Your task to perform on an android device: add a contact in the contacts app Image 0: 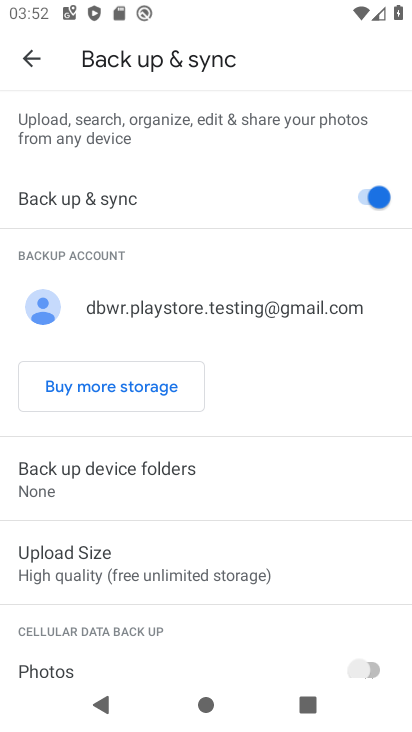
Step 0: press home button
Your task to perform on an android device: add a contact in the contacts app Image 1: 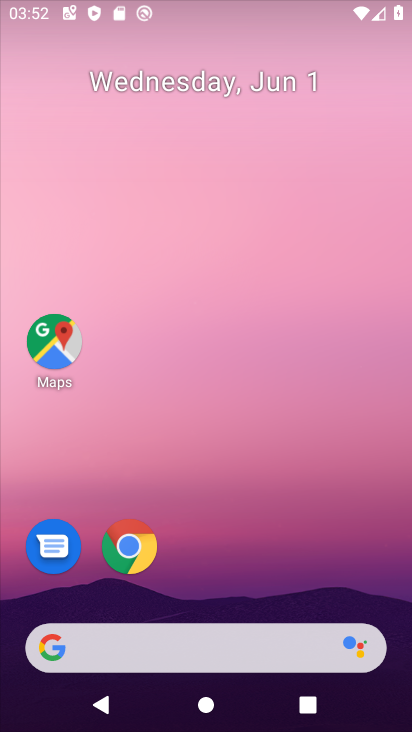
Step 1: drag from (317, 539) to (237, 5)
Your task to perform on an android device: add a contact in the contacts app Image 2: 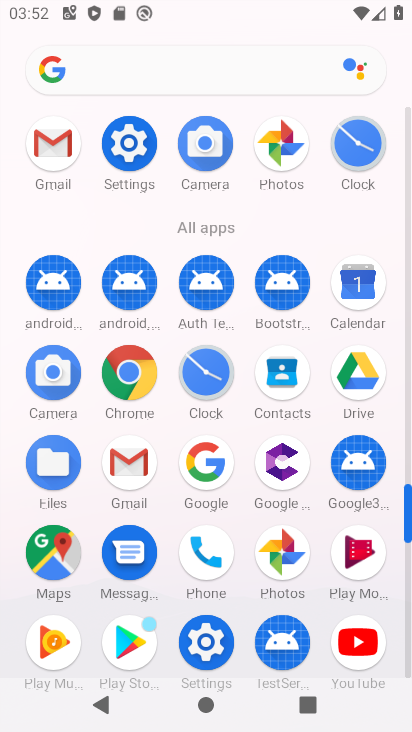
Step 2: click (276, 368)
Your task to perform on an android device: add a contact in the contacts app Image 3: 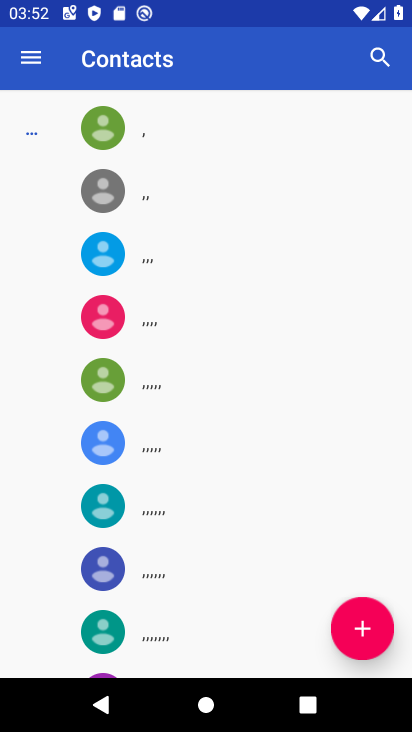
Step 3: click (361, 640)
Your task to perform on an android device: add a contact in the contacts app Image 4: 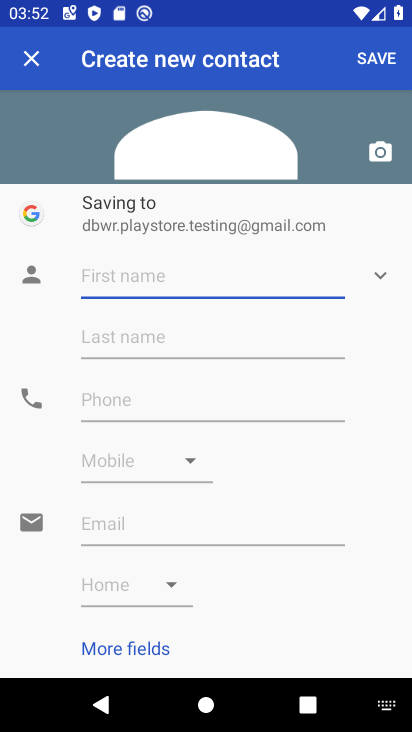
Step 4: type "old"
Your task to perform on an android device: add a contact in the contacts app Image 5: 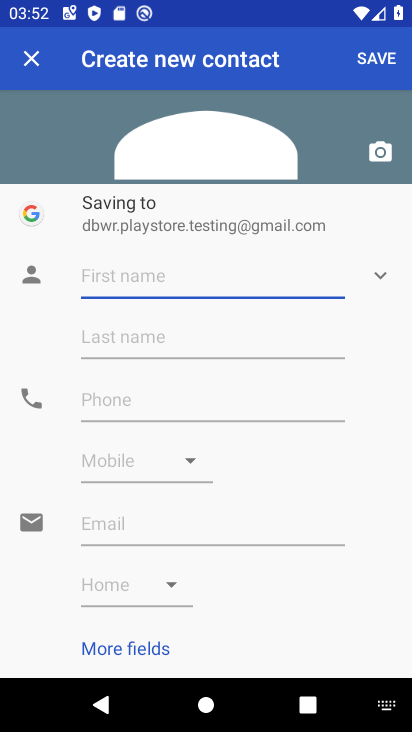
Step 5: click (171, 409)
Your task to perform on an android device: add a contact in the contacts app Image 6: 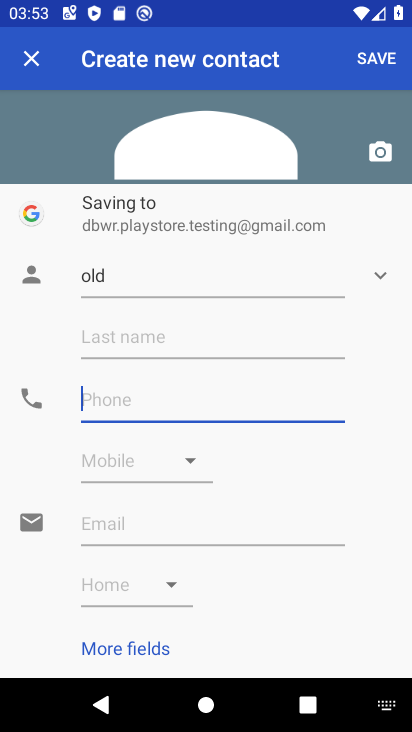
Step 6: type "12345678901"
Your task to perform on an android device: add a contact in the contacts app Image 7: 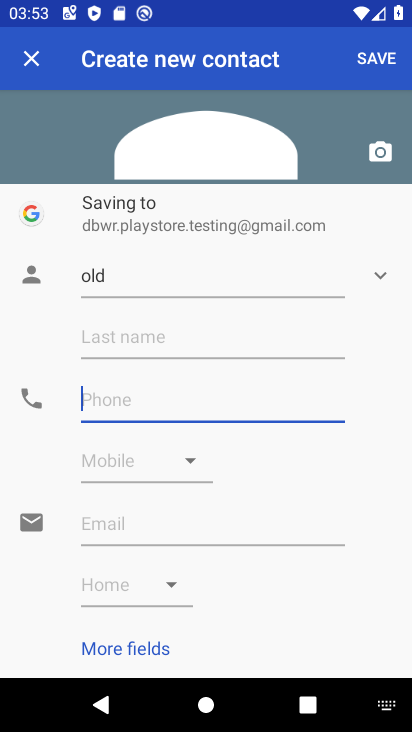
Step 7: click (374, 52)
Your task to perform on an android device: add a contact in the contacts app Image 8: 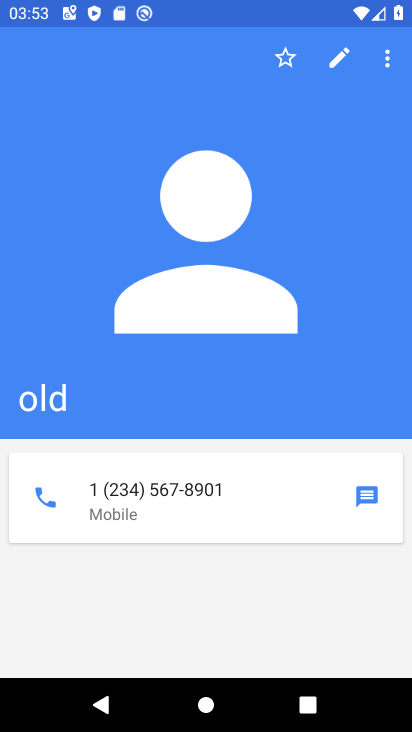
Step 8: task complete